Your task to perform on an android device: toggle improve location accuracy Image 0: 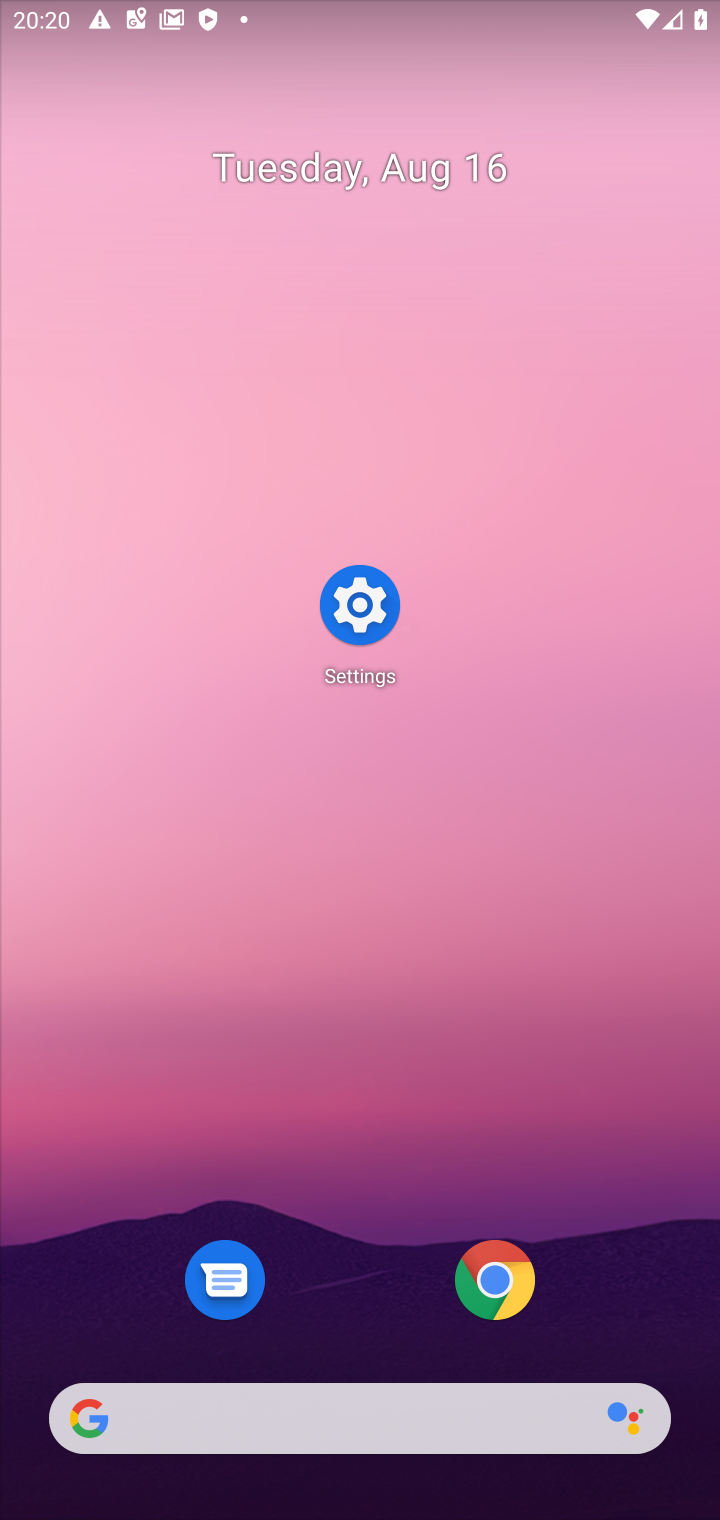
Step 0: drag from (315, 1246) to (410, 466)
Your task to perform on an android device: toggle improve location accuracy Image 1: 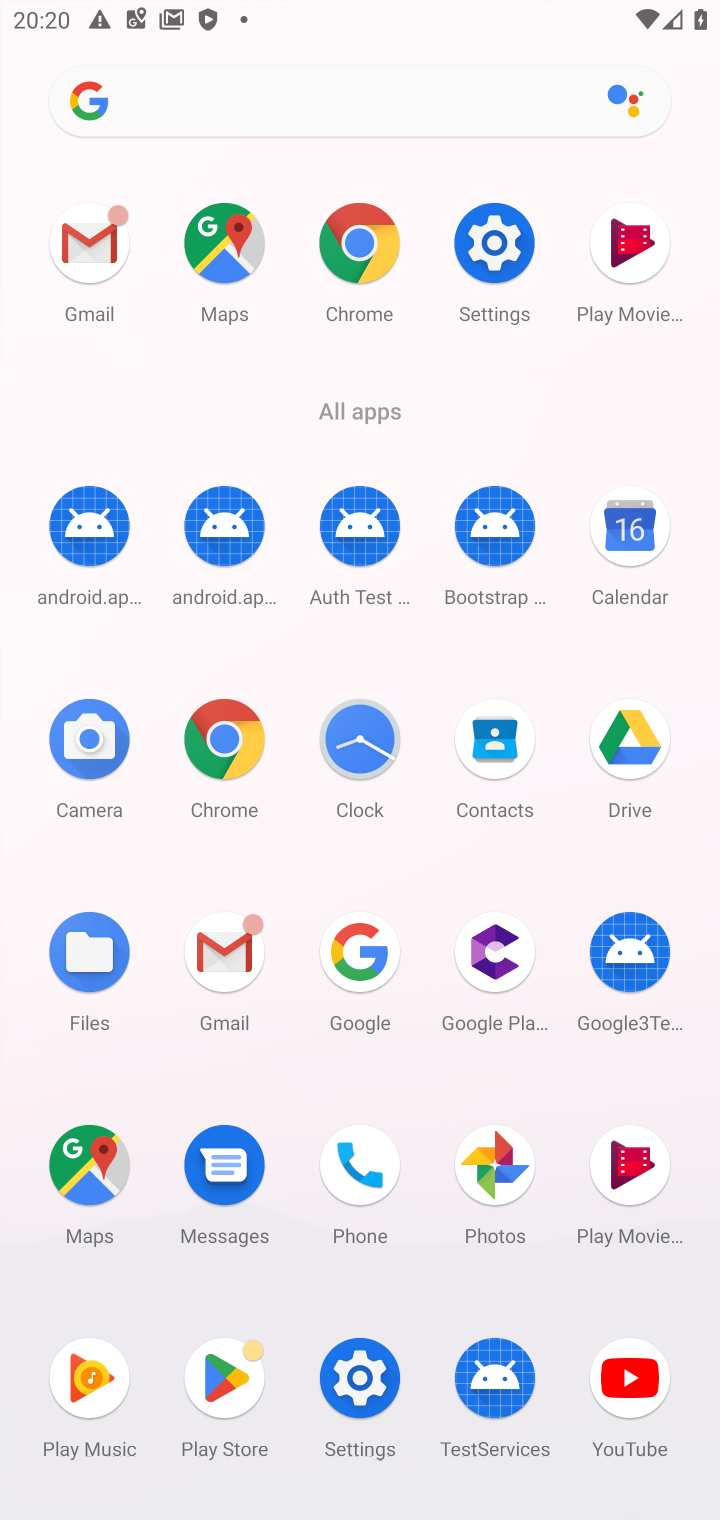
Step 1: click (344, 1383)
Your task to perform on an android device: toggle improve location accuracy Image 2: 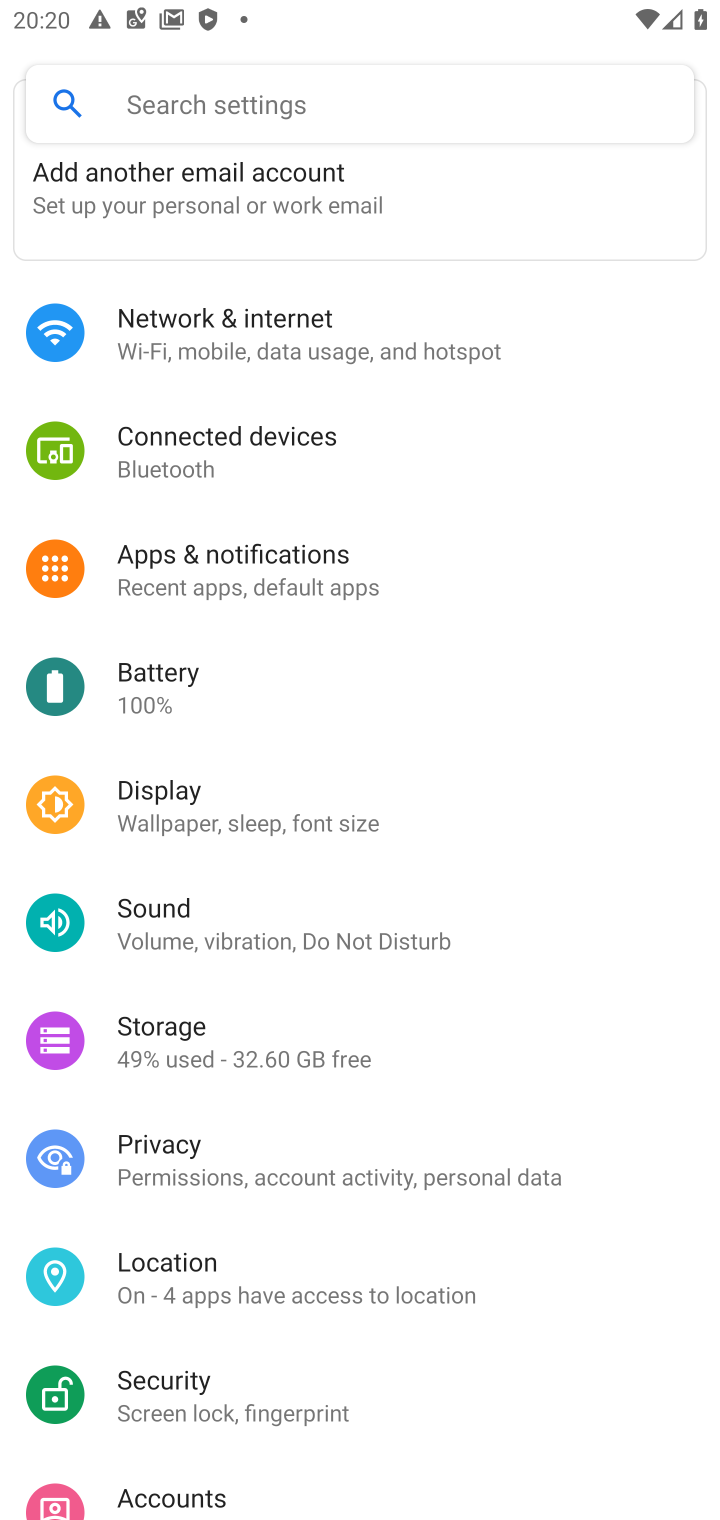
Step 2: click (215, 1284)
Your task to perform on an android device: toggle improve location accuracy Image 3: 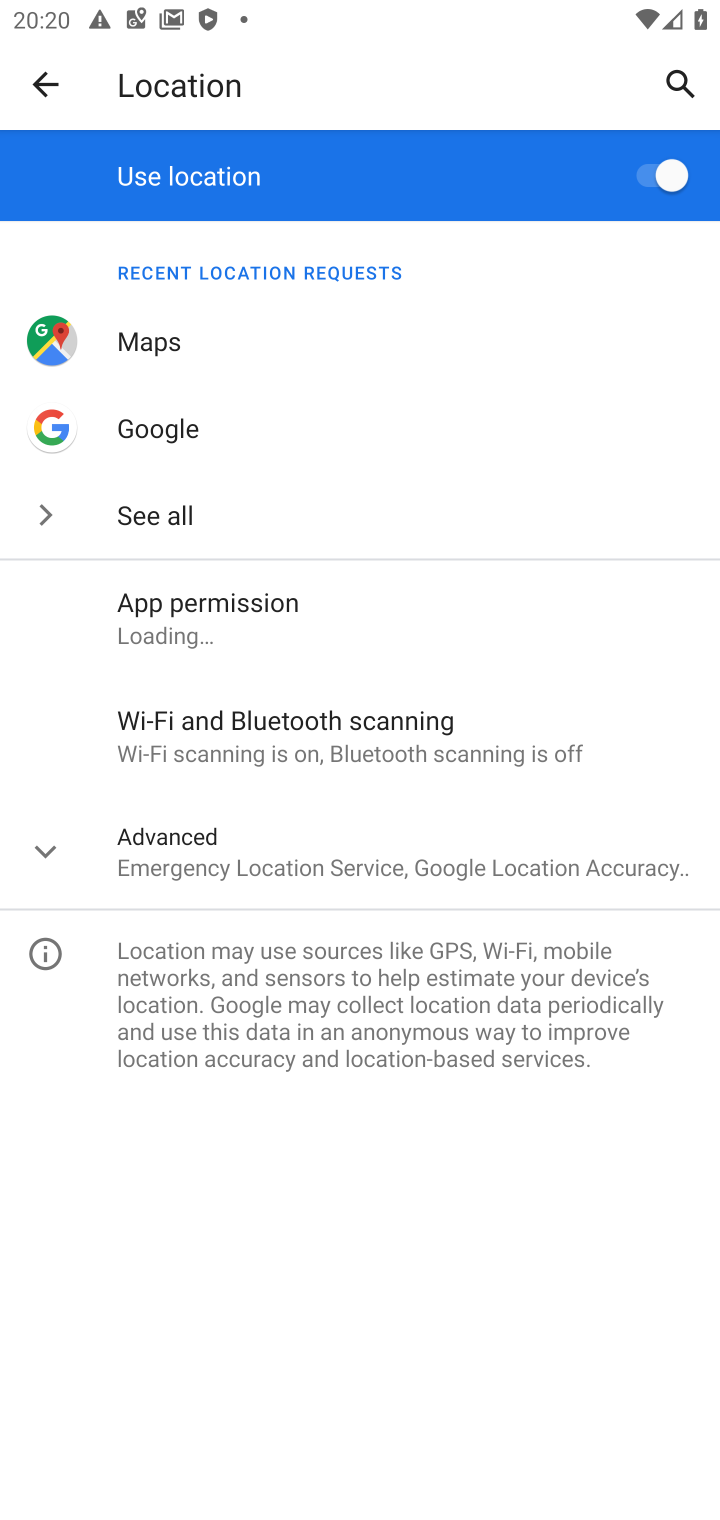
Step 3: click (269, 856)
Your task to perform on an android device: toggle improve location accuracy Image 4: 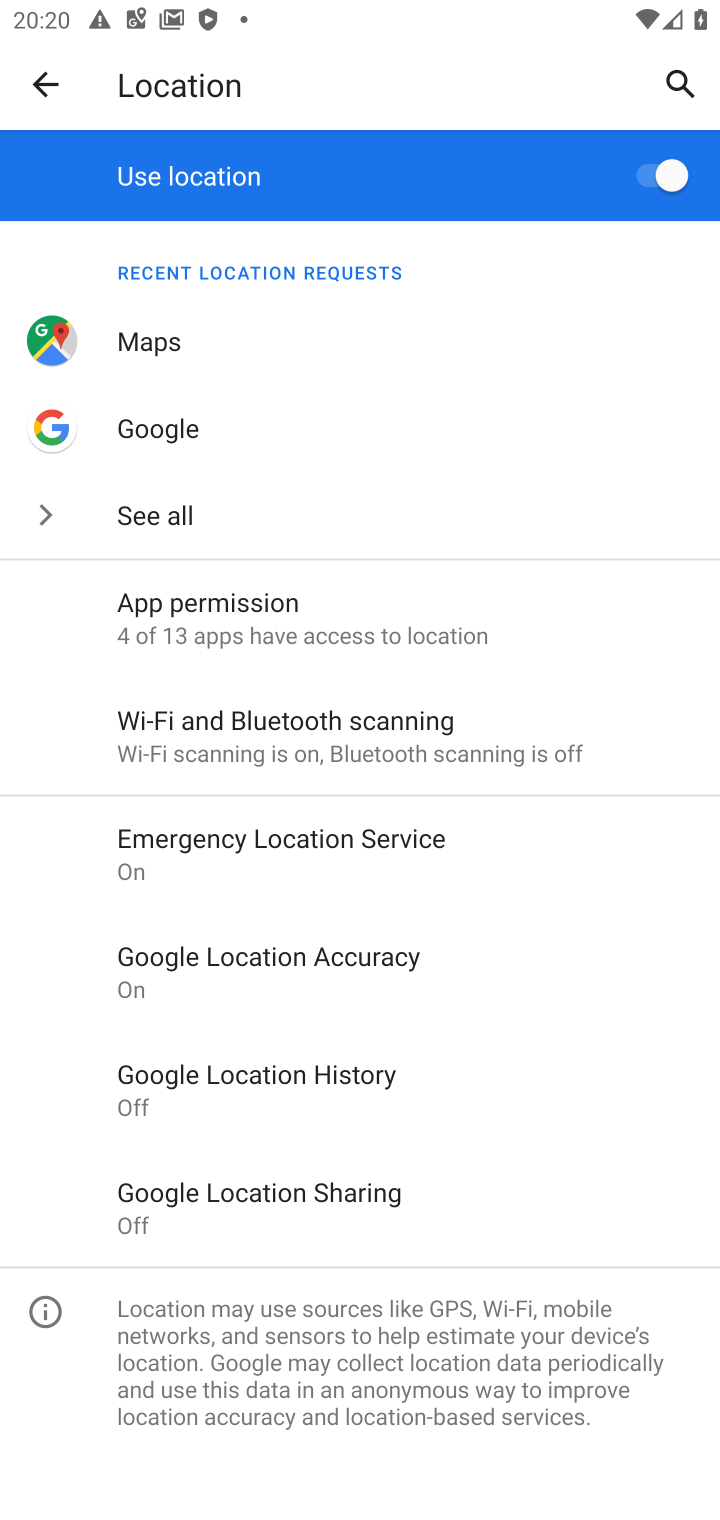
Step 4: click (256, 971)
Your task to perform on an android device: toggle improve location accuracy Image 5: 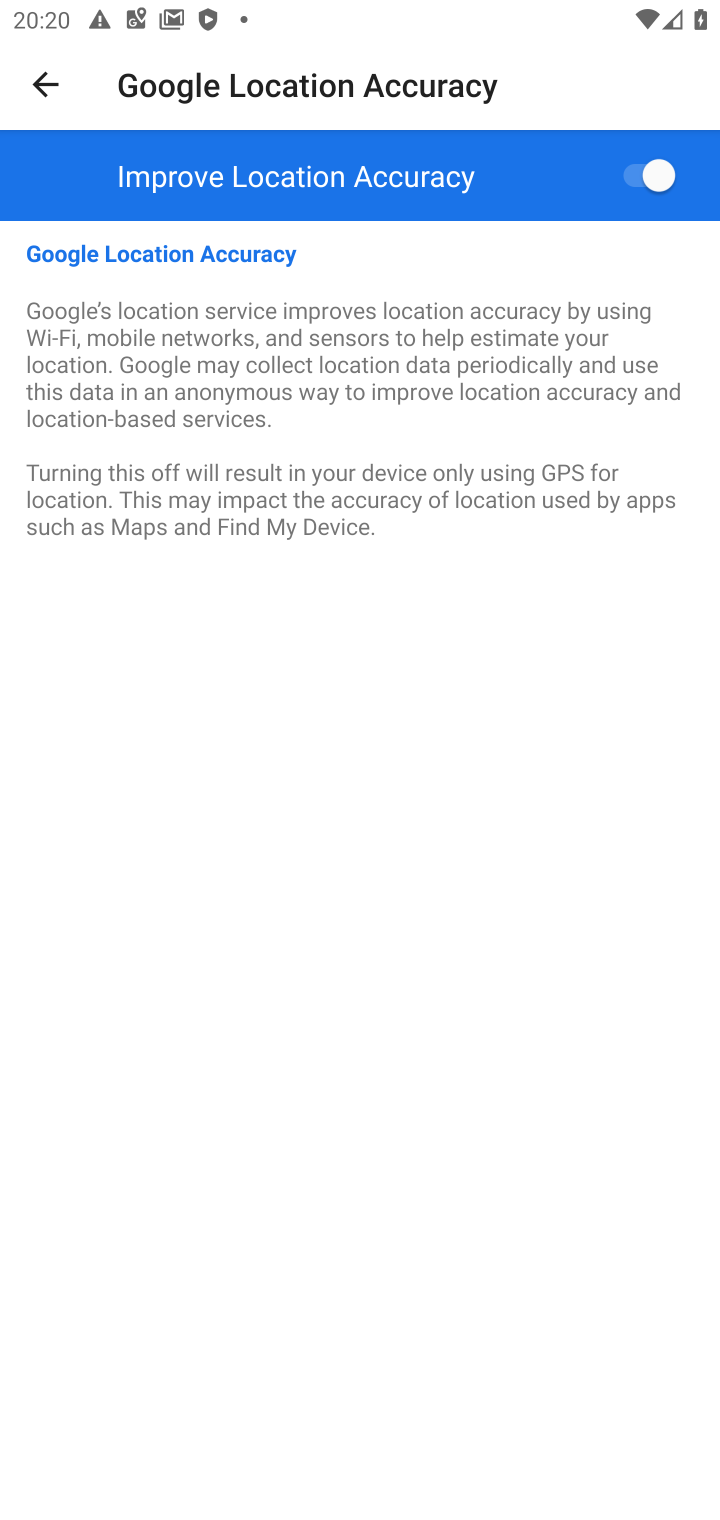
Step 5: click (597, 181)
Your task to perform on an android device: toggle improve location accuracy Image 6: 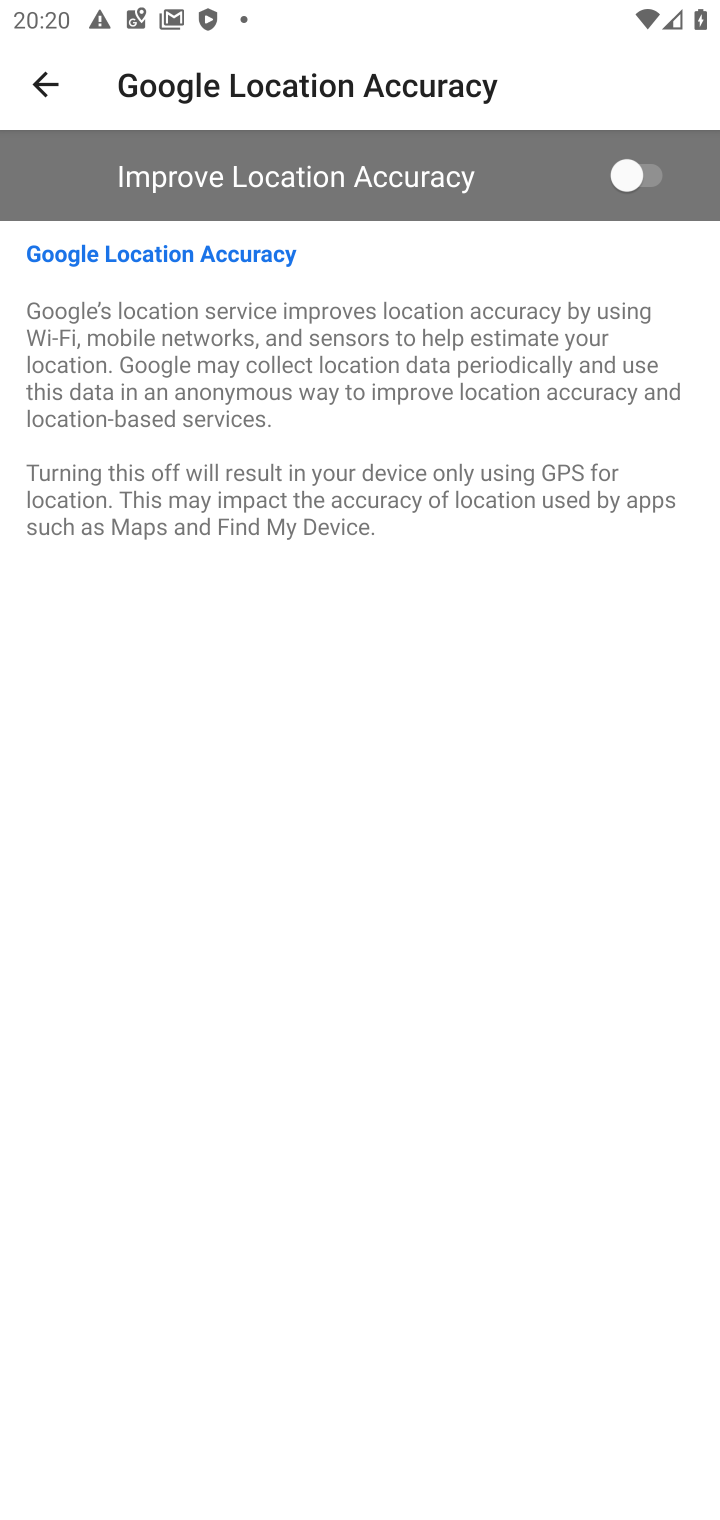
Step 6: task complete